Your task to perform on an android device: What is the recent news? Image 0: 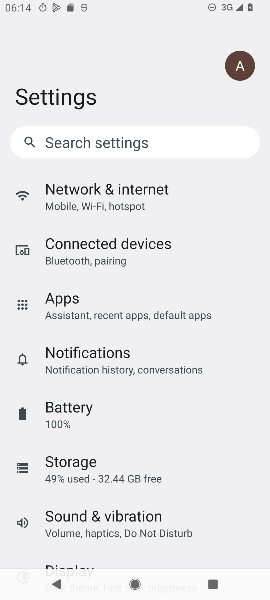
Step 0: press home button
Your task to perform on an android device: What is the recent news? Image 1: 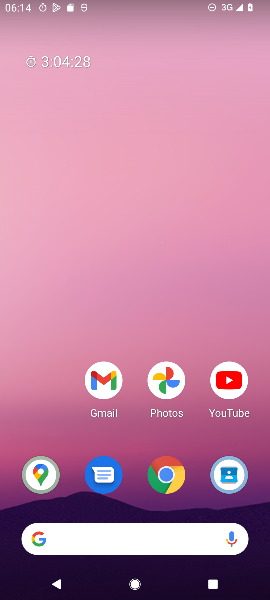
Step 1: task complete